Your task to perform on an android device: turn on notifications settings in the gmail app Image 0: 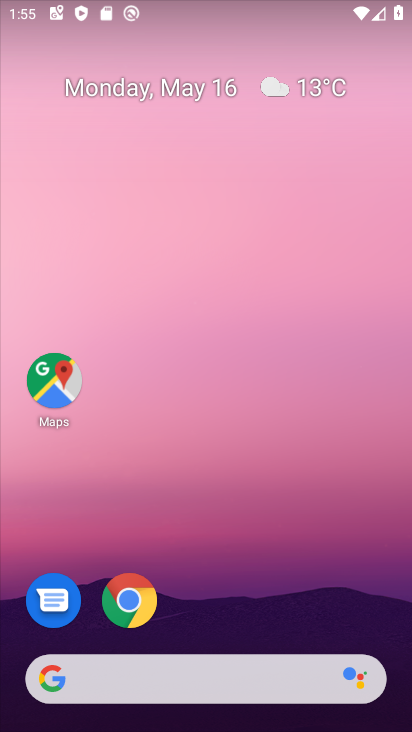
Step 0: drag from (278, 608) to (279, 37)
Your task to perform on an android device: turn on notifications settings in the gmail app Image 1: 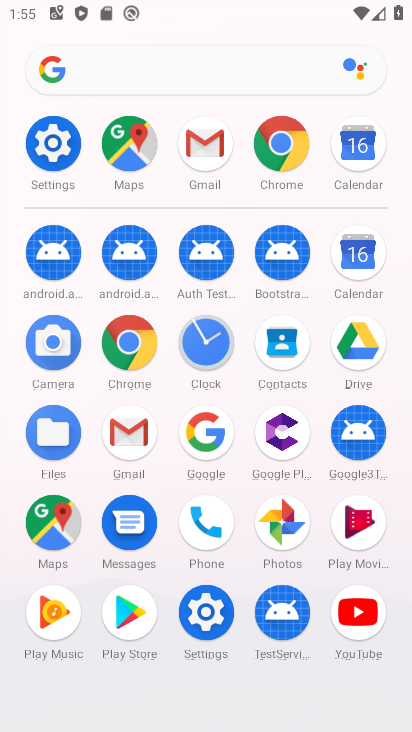
Step 1: click (206, 160)
Your task to perform on an android device: turn on notifications settings in the gmail app Image 2: 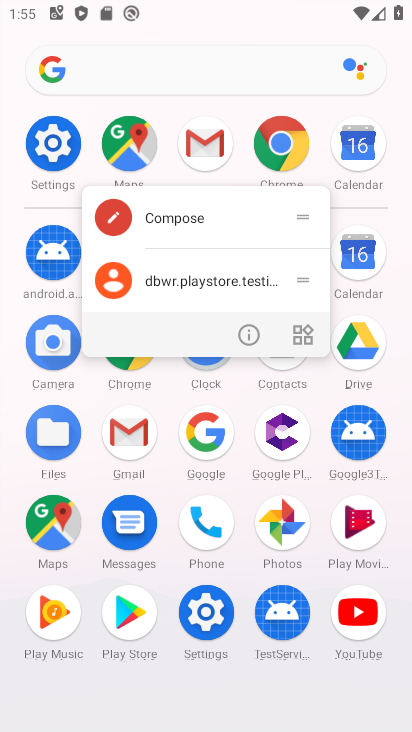
Step 2: click (241, 335)
Your task to perform on an android device: turn on notifications settings in the gmail app Image 3: 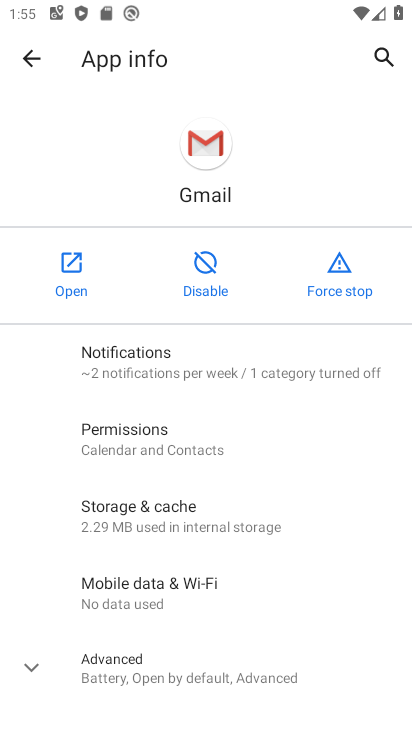
Step 3: click (160, 387)
Your task to perform on an android device: turn on notifications settings in the gmail app Image 4: 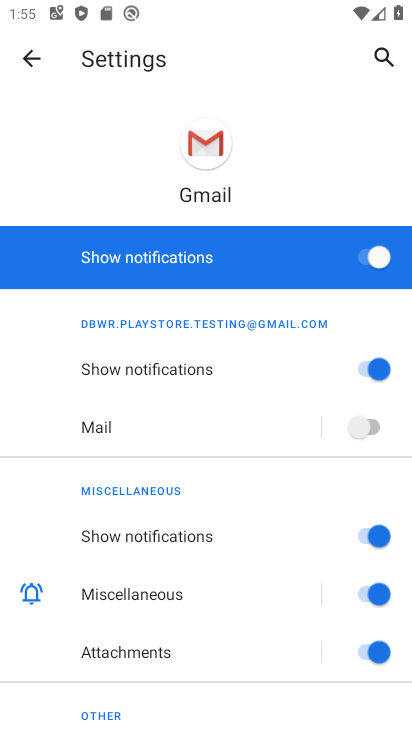
Step 4: click (360, 422)
Your task to perform on an android device: turn on notifications settings in the gmail app Image 5: 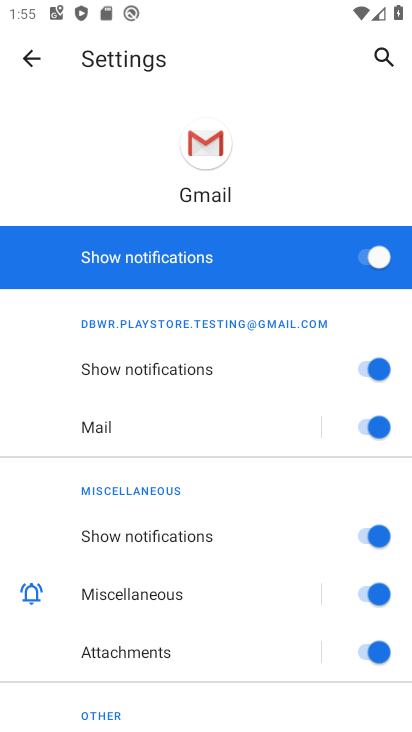
Step 5: task complete